Your task to perform on an android device: Is it going to rain tomorrow? Image 0: 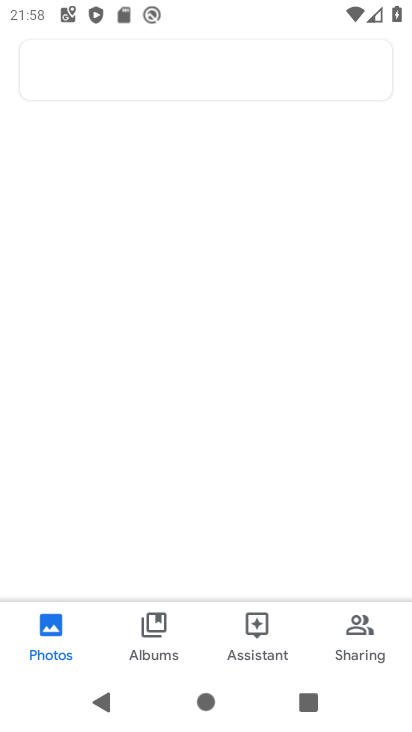
Step 0: drag from (325, 570) to (142, 102)
Your task to perform on an android device: Is it going to rain tomorrow? Image 1: 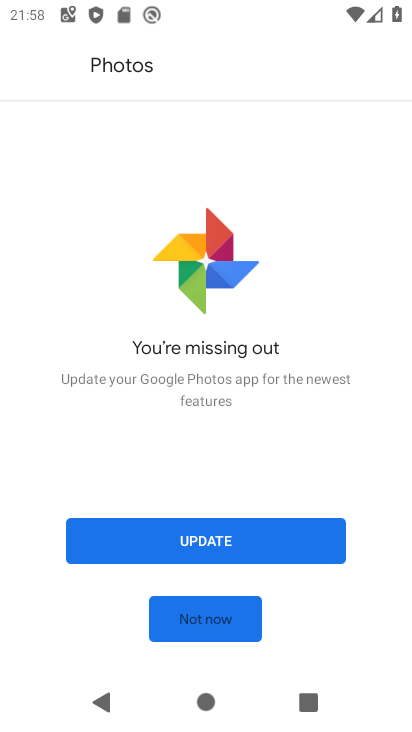
Step 1: press home button
Your task to perform on an android device: Is it going to rain tomorrow? Image 2: 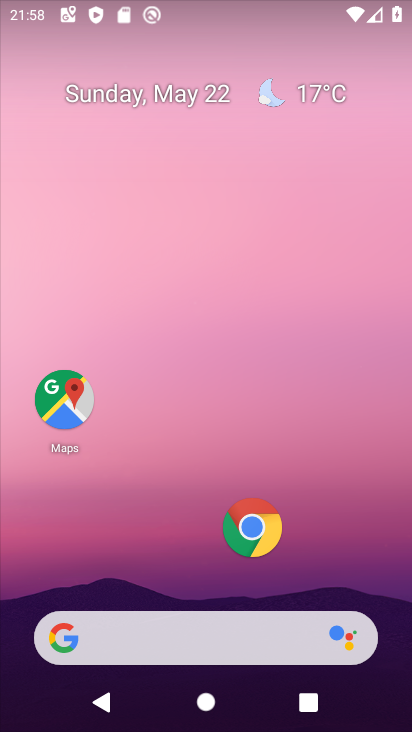
Step 2: click (173, 634)
Your task to perform on an android device: Is it going to rain tomorrow? Image 3: 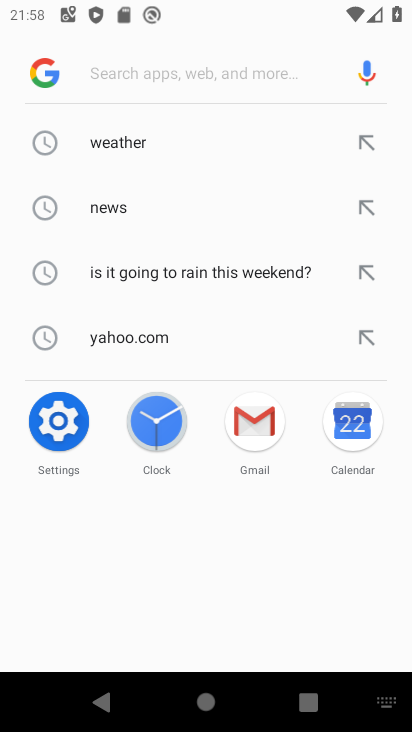
Step 3: click (118, 136)
Your task to perform on an android device: Is it going to rain tomorrow? Image 4: 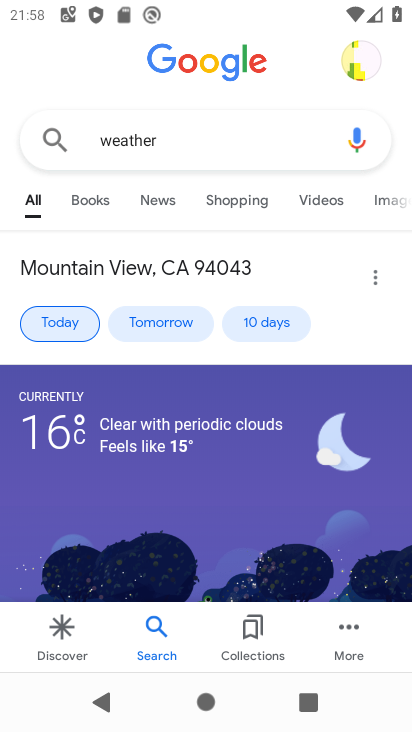
Step 4: click (155, 326)
Your task to perform on an android device: Is it going to rain tomorrow? Image 5: 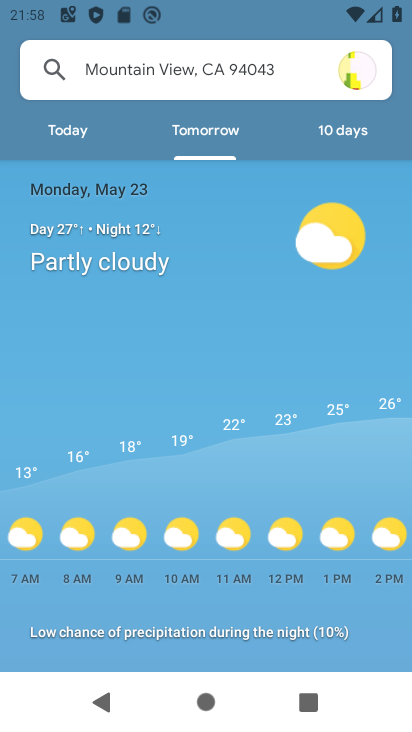
Step 5: task complete